Your task to perform on an android device: search for starred emails in the gmail app Image 0: 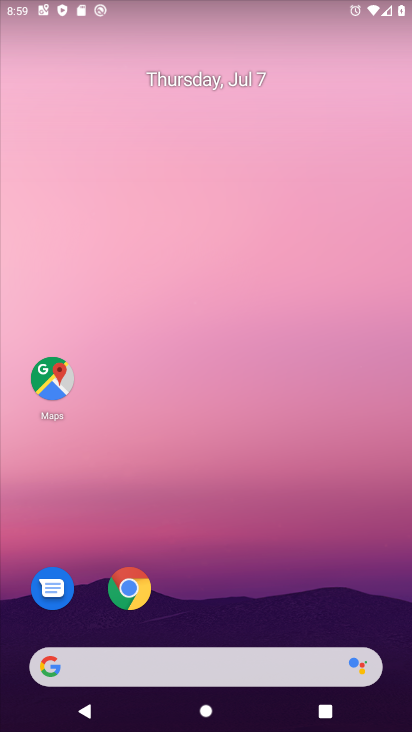
Step 0: press home button
Your task to perform on an android device: search for starred emails in the gmail app Image 1: 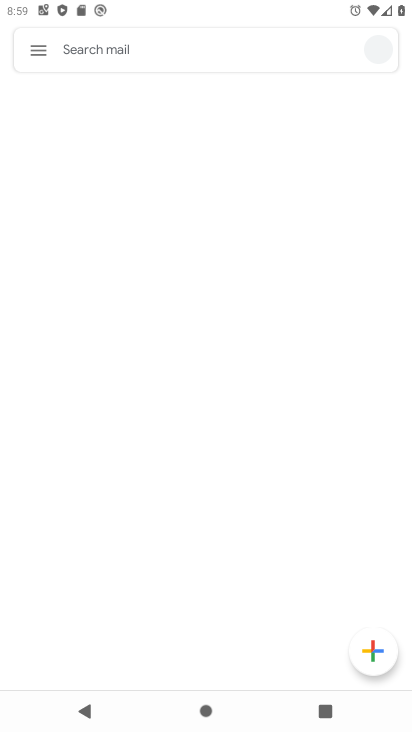
Step 1: drag from (222, 612) to (269, 18)
Your task to perform on an android device: search for starred emails in the gmail app Image 2: 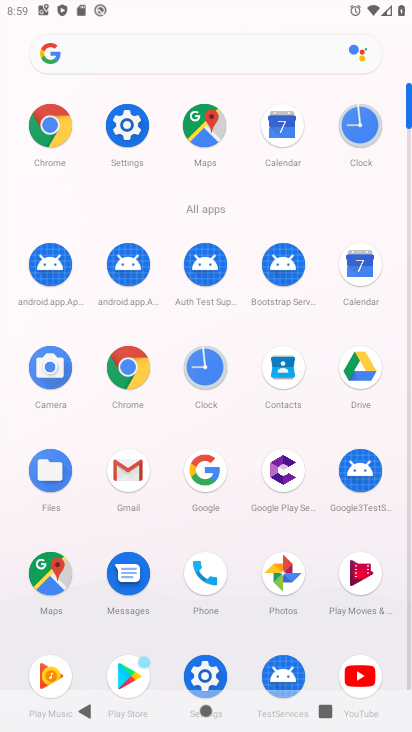
Step 2: click (131, 462)
Your task to perform on an android device: search for starred emails in the gmail app Image 3: 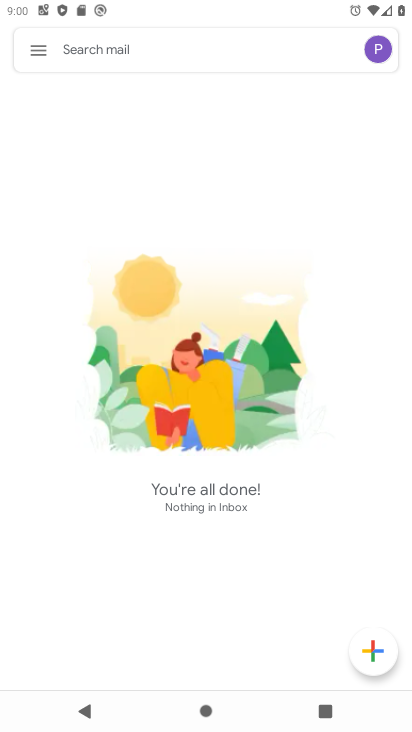
Step 3: click (39, 46)
Your task to perform on an android device: search for starred emails in the gmail app Image 4: 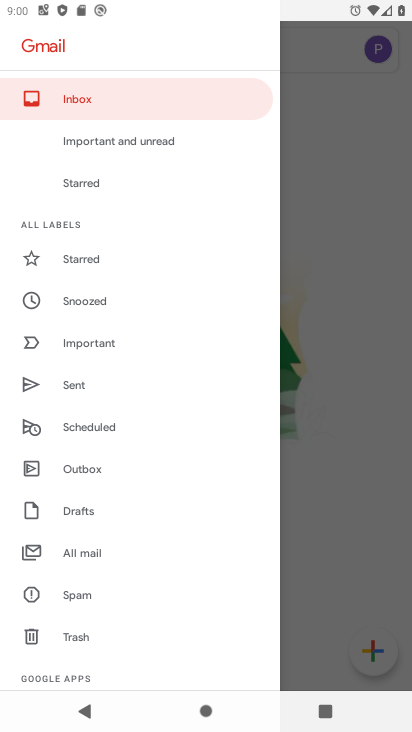
Step 4: click (81, 258)
Your task to perform on an android device: search for starred emails in the gmail app Image 5: 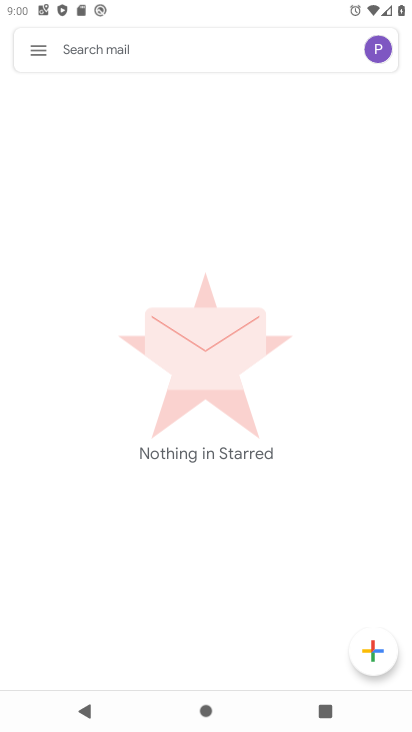
Step 5: task complete